Your task to perform on an android device: What's on my calendar tomorrow? Image 0: 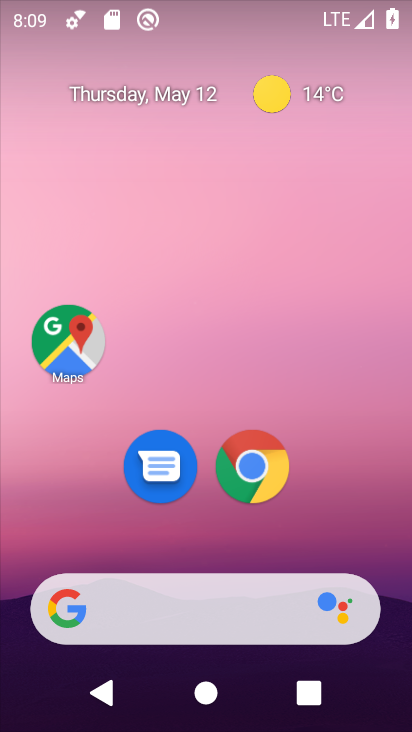
Step 0: drag from (210, 538) to (228, 3)
Your task to perform on an android device: What's on my calendar tomorrow? Image 1: 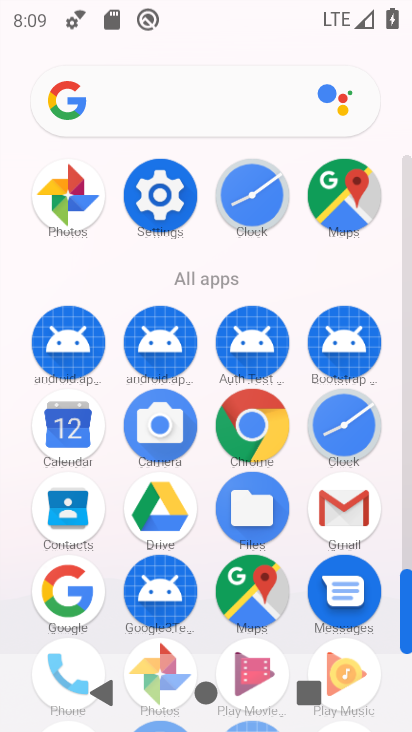
Step 1: click (68, 430)
Your task to perform on an android device: What's on my calendar tomorrow? Image 2: 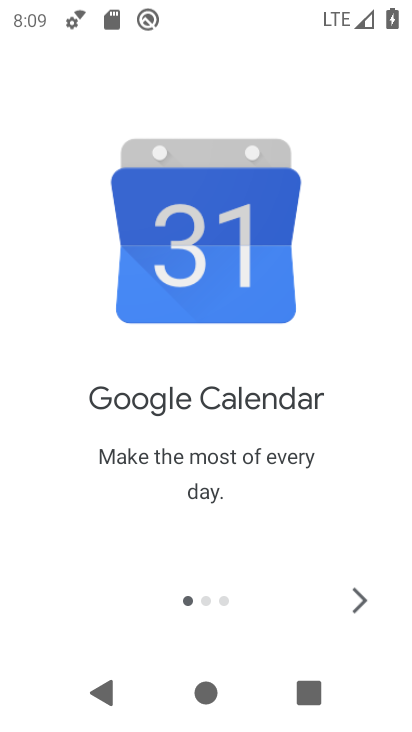
Step 2: click (362, 596)
Your task to perform on an android device: What's on my calendar tomorrow? Image 3: 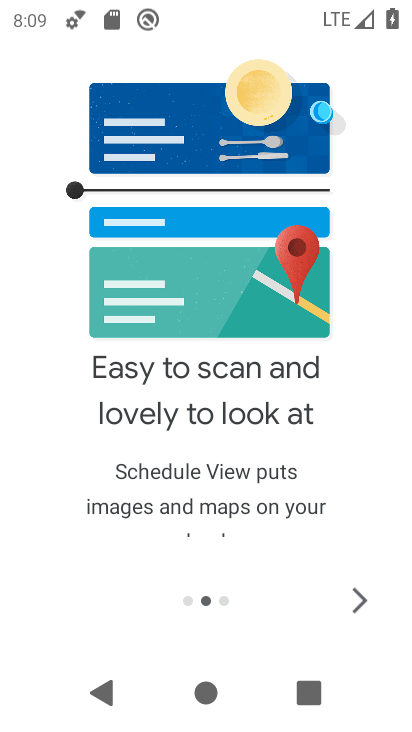
Step 3: click (362, 596)
Your task to perform on an android device: What's on my calendar tomorrow? Image 4: 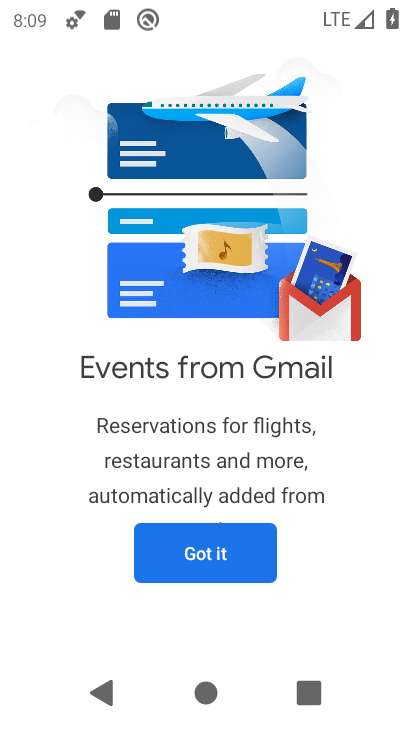
Step 4: click (362, 596)
Your task to perform on an android device: What's on my calendar tomorrow? Image 5: 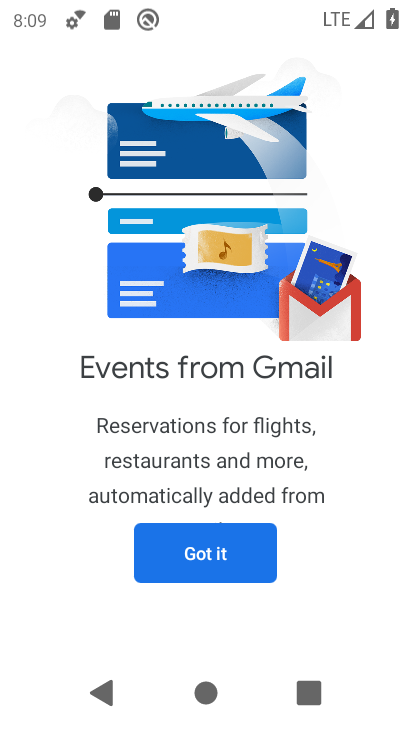
Step 5: click (185, 553)
Your task to perform on an android device: What's on my calendar tomorrow? Image 6: 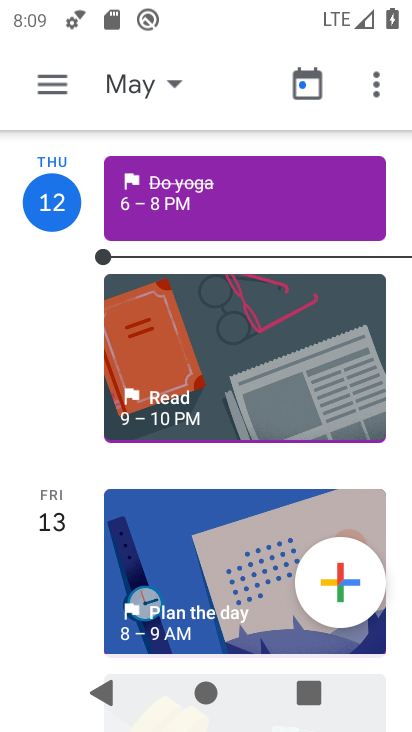
Step 6: click (61, 519)
Your task to perform on an android device: What's on my calendar tomorrow? Image 7: 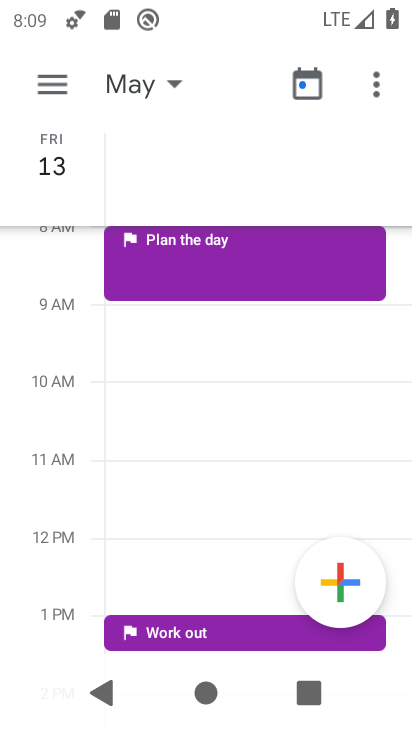
Step 7: task complete